Your task to perform on an android device: open app "eBay: The shopping marketplace" Image 0: 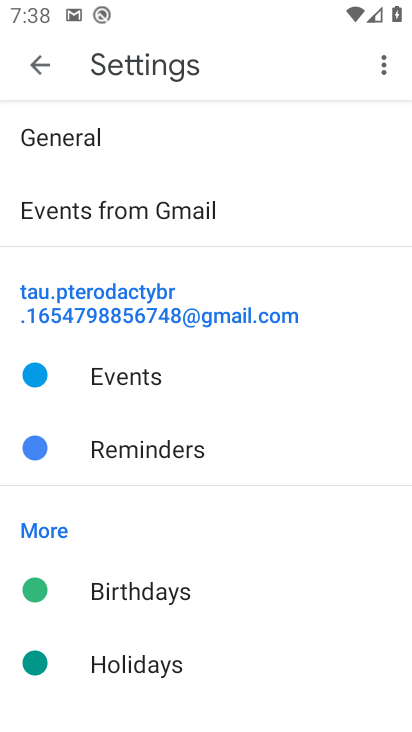
Step 0: press home button
Your task to perform on an android device: open app "eBay: The shopping marketplace" Image 1: 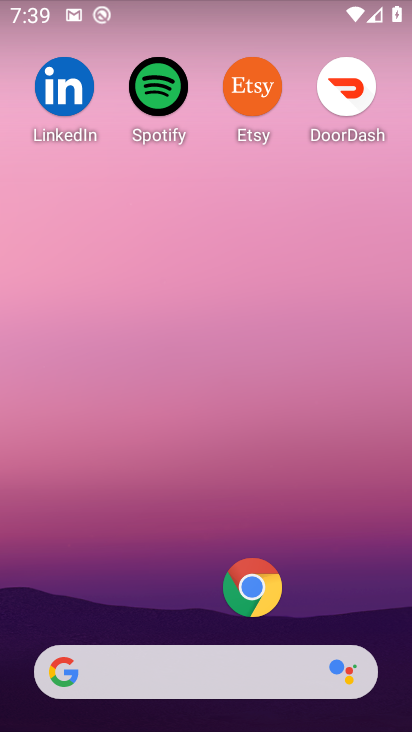
Step 1: drag from (164, 612) to (339, 23)
Your task to perform on an android device: open app "eBay: The shopping marketplace" Image 2: 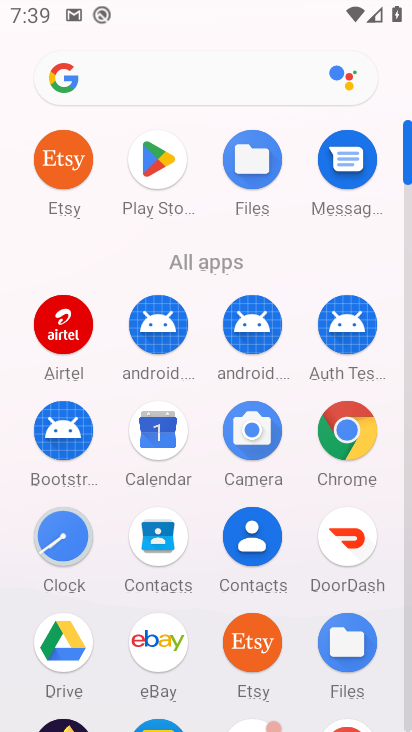
Step 2: click (153, 213)
Your task to perform on an android device: open app "eBay: The shopping marketplace" Image 3: 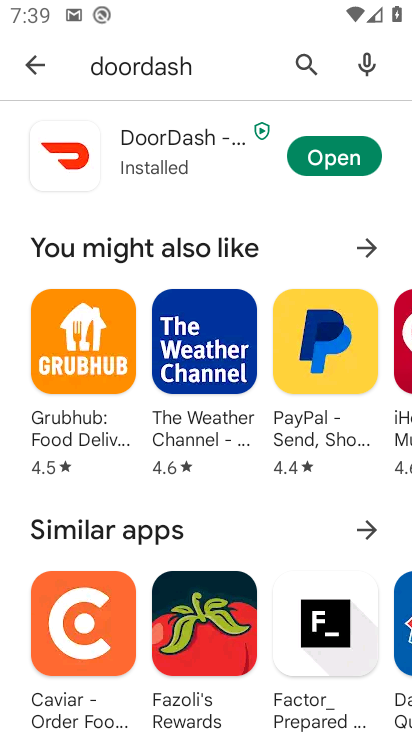
Step 3: click (298, 51)
Your task to perform on an android device: open app "eBay: The shopping marketplace" Image 4: 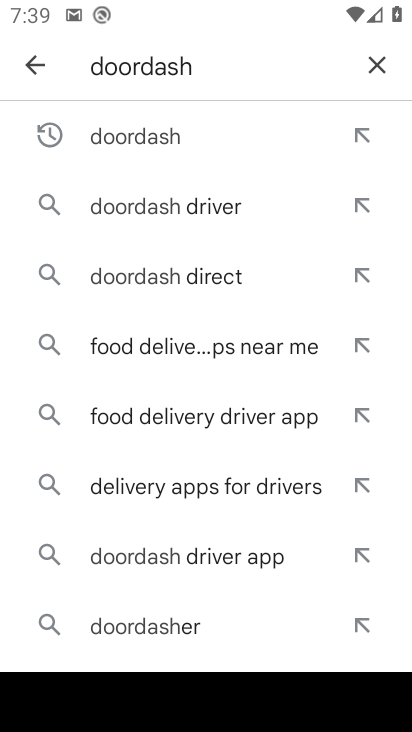
Step 4: click (362, 66)
Your task to perform on an android device: open app "eBay: The shopping marketplace" Image 5: 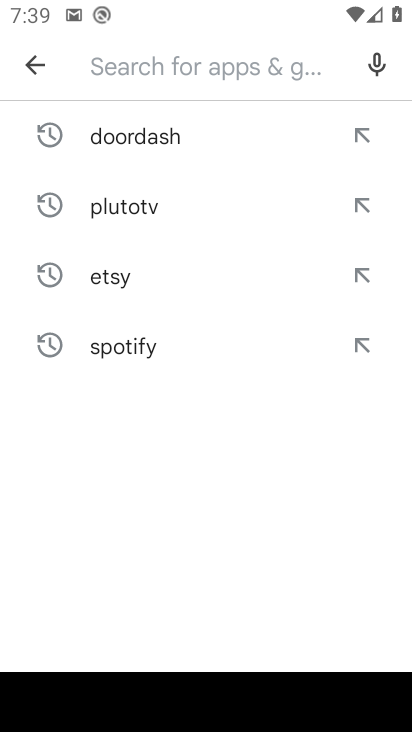
Step 5: type "ebay"
Your task to perform on an android device: open app "eBay: The shopping marketplace" Image 6: 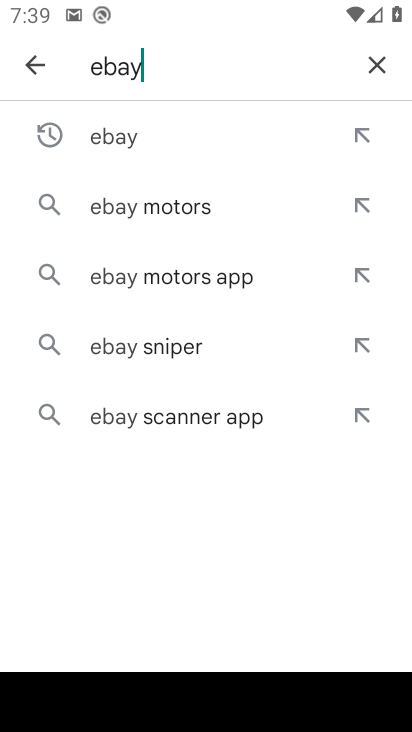
Step 6: click (226, 142)
Your task to perform on an android device: open app "eBay: The shopping marketplace" Image 7: 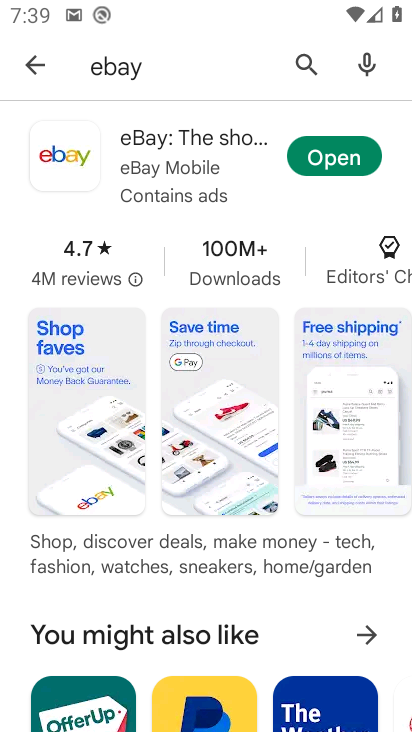
Step 7: click (322, 148)
Your task to perform on an android device: open app "eBay: The shopping marketplace" Image 8: 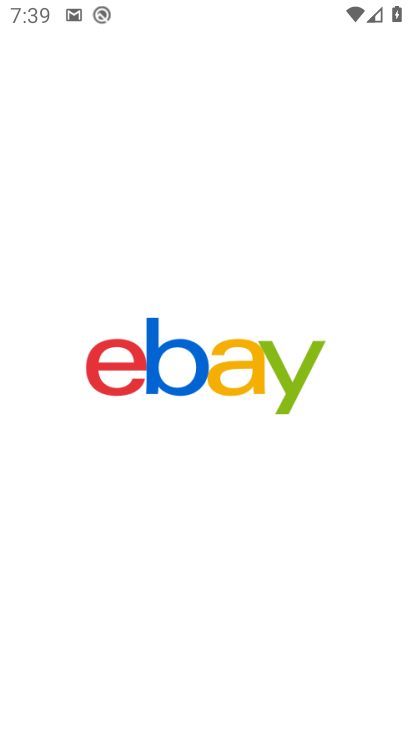
Step 8: task complete